Your task to perform on an android device: Open Chrome and go to the settings page Image 0: 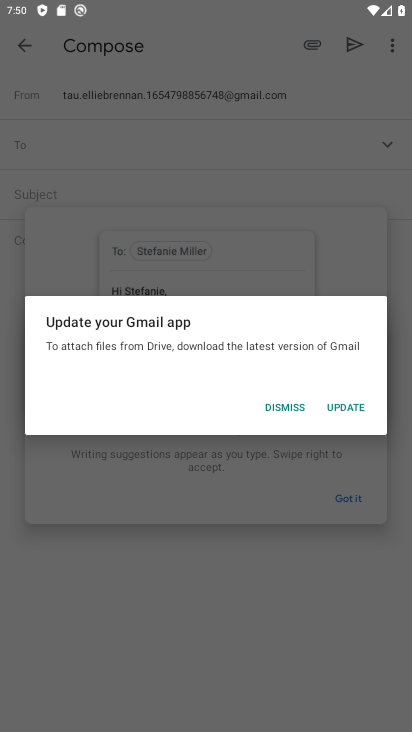
Step 0: press home button
Your task to perform on an android device: Open Chrome and go to the settings page Image 1: 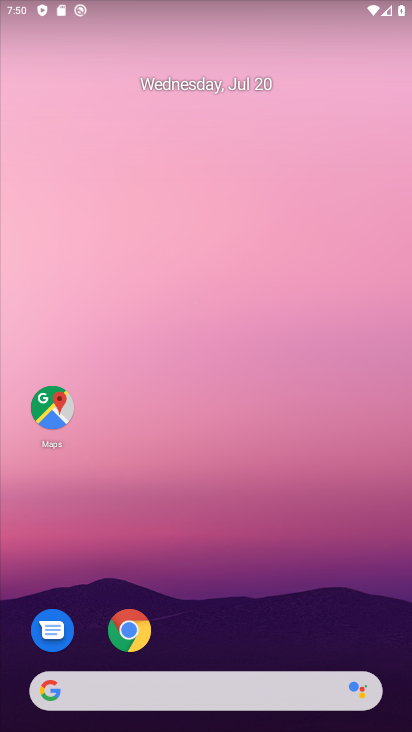
Step 1: click (133, 640)
Your task to perform on an android device: Open Chrome and go to the settings page Image 2: 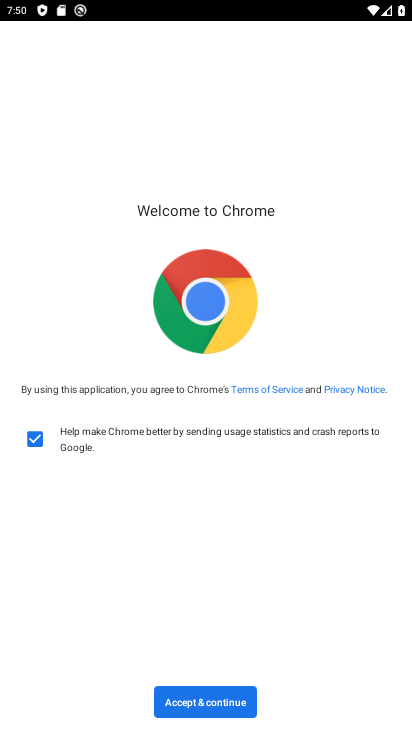
Step 2: click (203, 698)
Your task to perform on an android device: Open Chrome and go to the settings page Image 3: 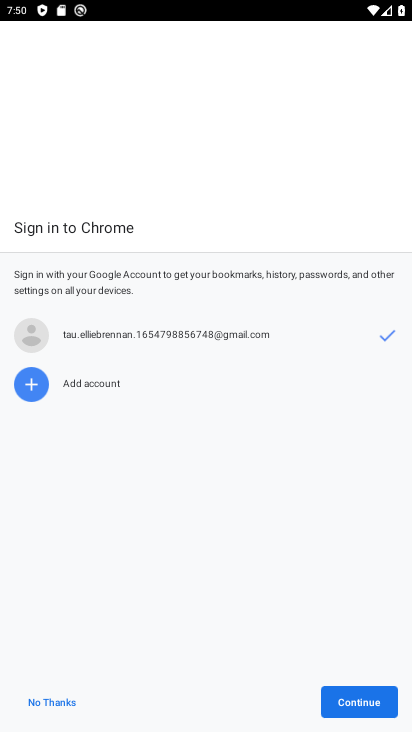
Step 3: click (344, 707)
Your task to perform on an android device: Open Chrome and go to the settings page Image 4: 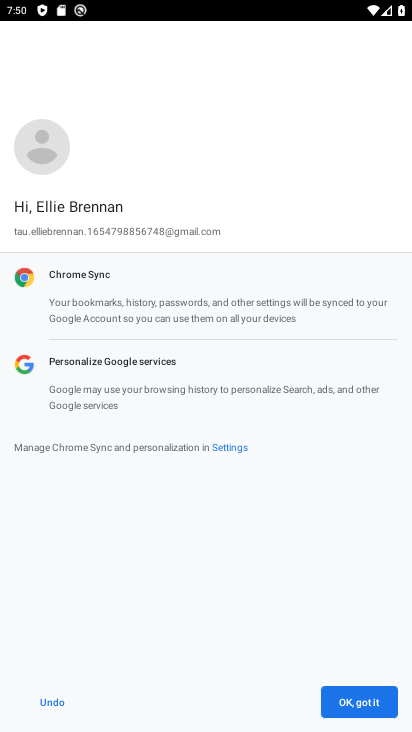
Step 4: click (344, 707)
Your task to perform on an android device: Open Chrome and go to the settings page Image 5: 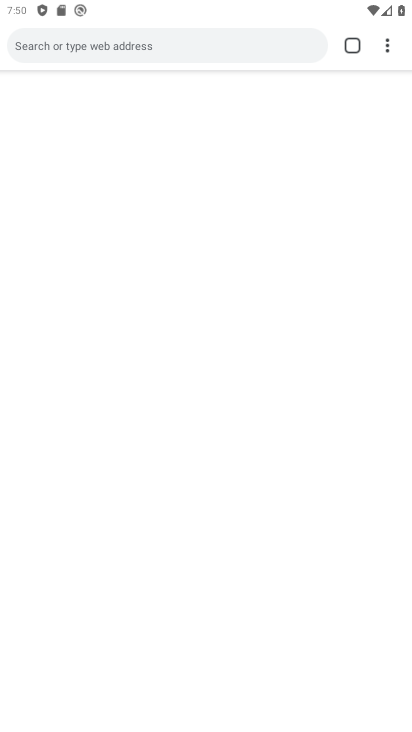
Step 5: click (344, 707)
Your task to perform on an android device: Open Chrome and go to the settings page Image 6: 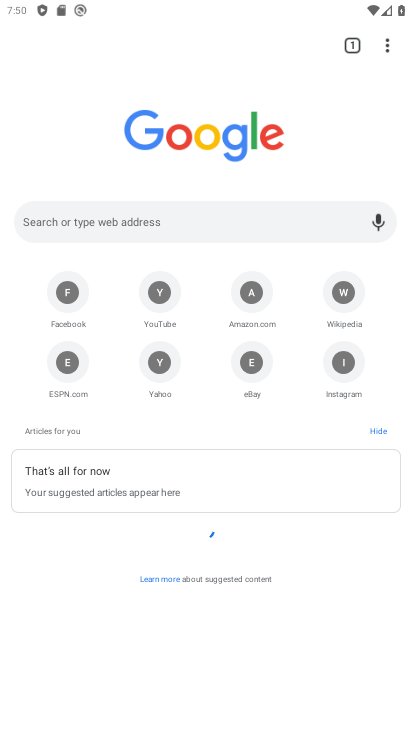
Step 6: click (391, 41)
Your task to perform on an android device: Open Chrome and go to the settings page Image 7: 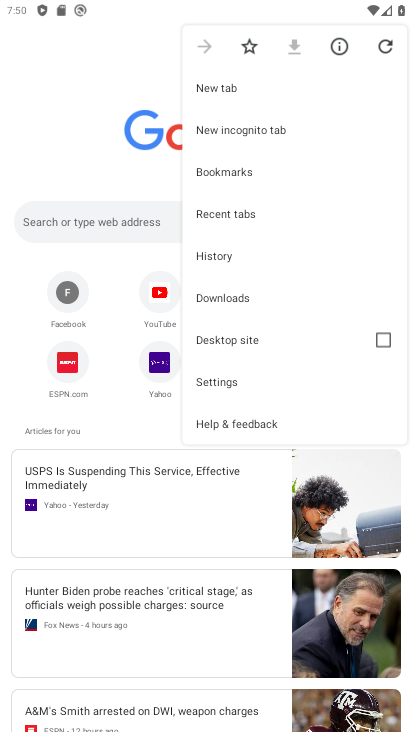
Step 7: click (219, 379)
Your task to perform on an android device: Open Chrome and go to the settings page Image 8: 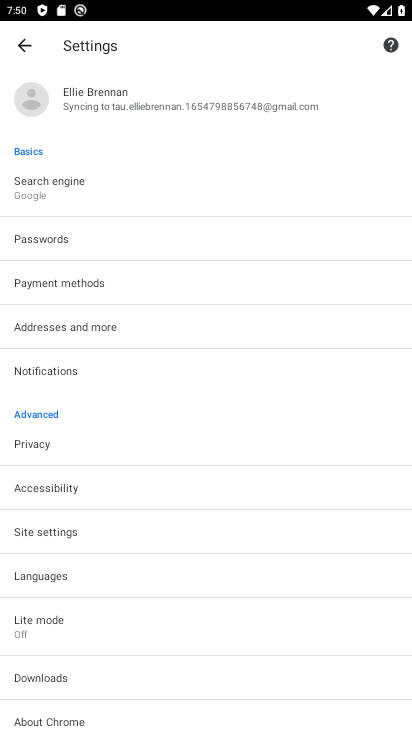
Step 8: task complete